Your task to perform on an android device: Open the calendar and show me this week's events? Image 0: 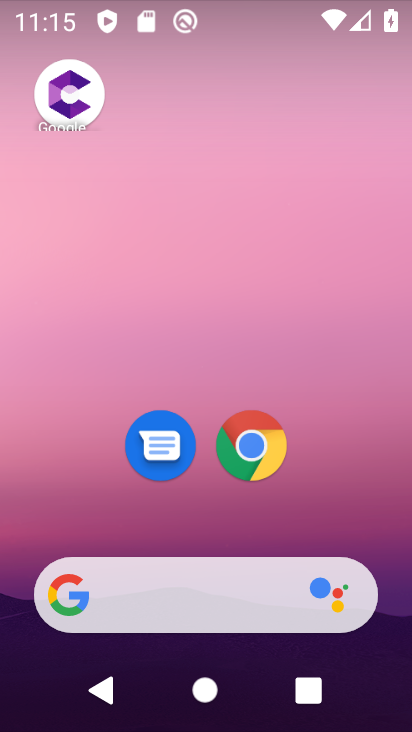
Step 0: drag from (209, 562) to (213, 162)
Your task to perform on an android device: Open the calendar and show me this week's events? Image 1: 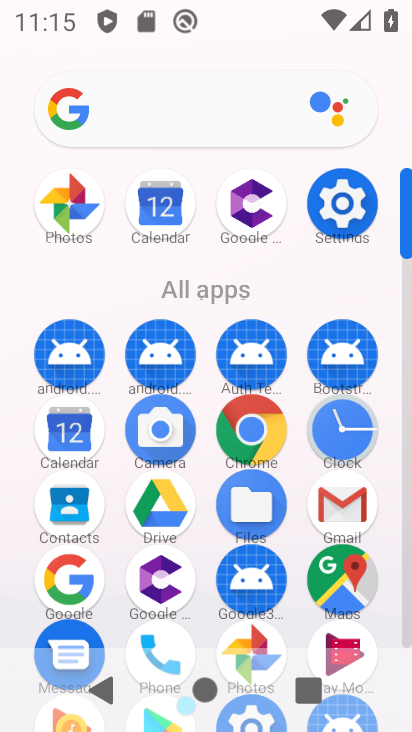
Step 1: click (75, 450)
Your task to perform on an android device: Open the calendar and show me this week's events? Image 2: 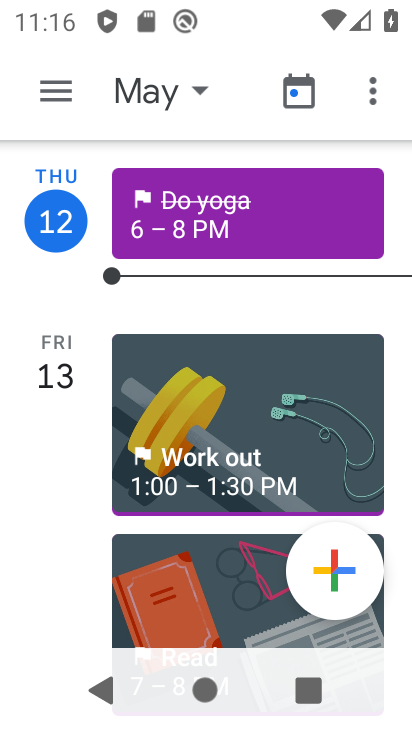
Step 2: click (47, 97)
Your task to perform on an android device: Open the calendar and show me this week's events? Image 3: 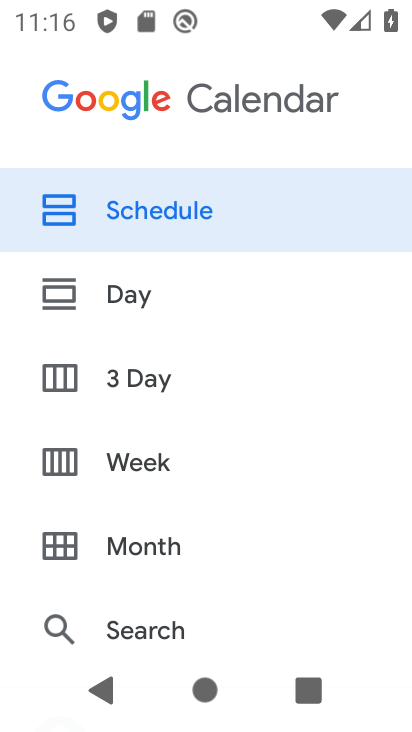
Step 3: click (127, 462)
Your task to perform on an android device: Open the calendar and show me this week's events? Image 4: 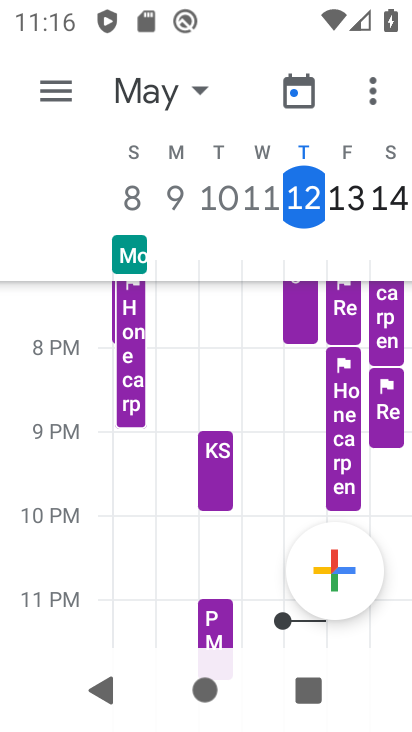
Step 4: task complete